Your task to perform on an android device: turn on data saver in the chrome app Image 0: 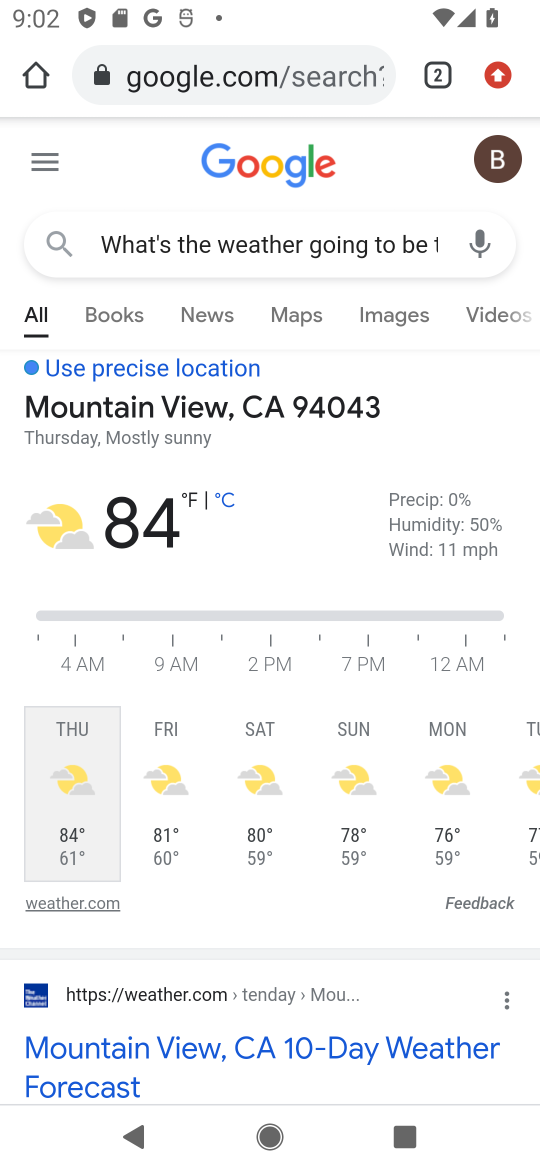
Step 0: click (520, 105)
Your task to perform on an android device: turn on data saver in the chrome app Image 1: 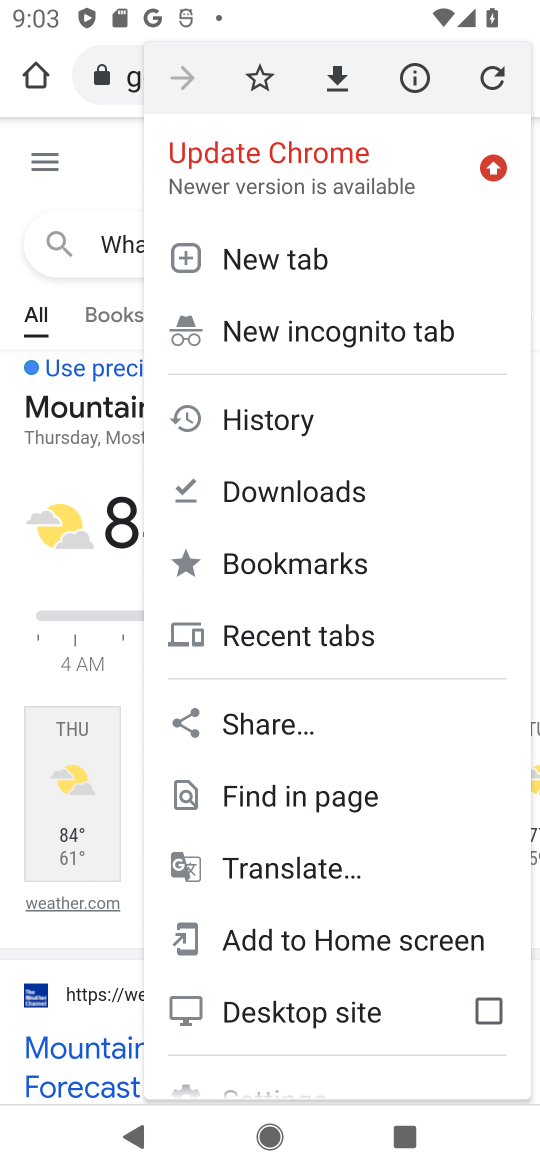
Step 1: drag from (372, 1042) to (348, 547)
Your task to perform on an android device: turn on data saver in the chrome app Image 2: 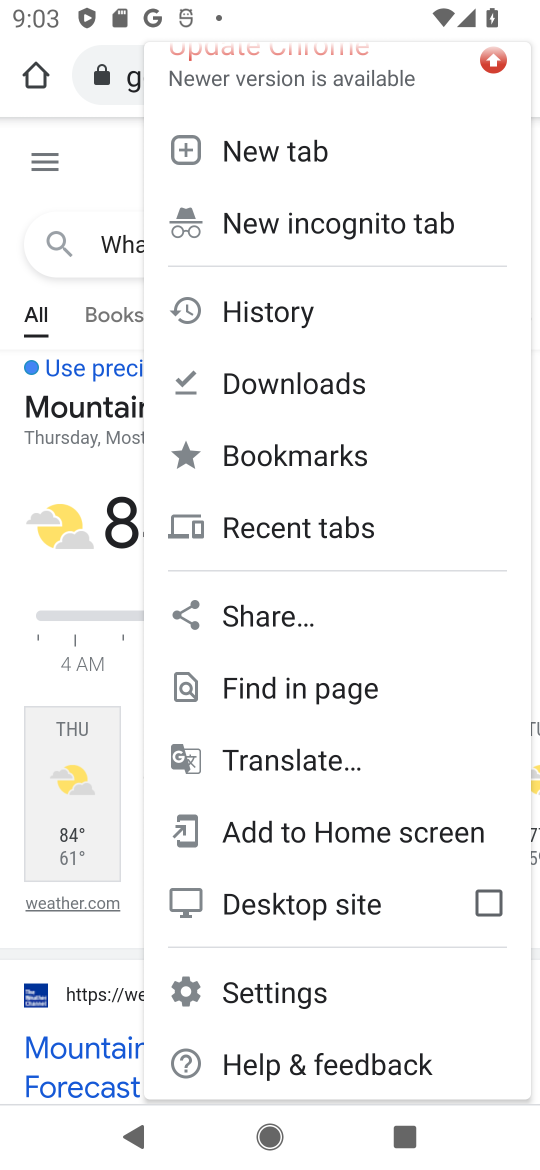
Step 2: click (329, 997)
Your task to perform on an android device: turn on data saver in the chrome app Image 3: 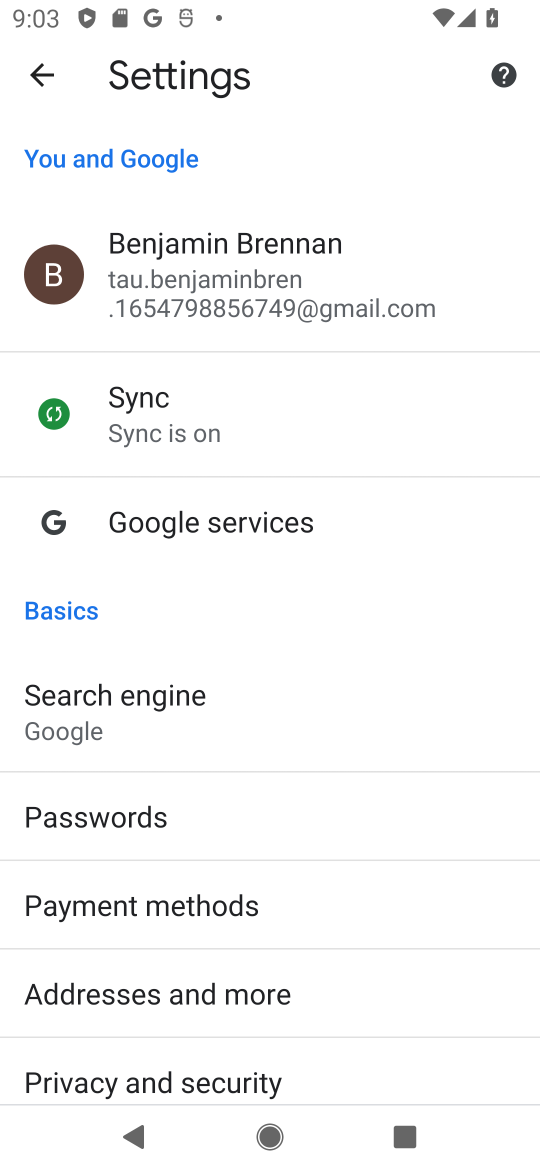
Step 3: drag from (331, 1034) to (284, 412)
Your task to perform on an android device: turn on data saver in the chrome app Image 4: 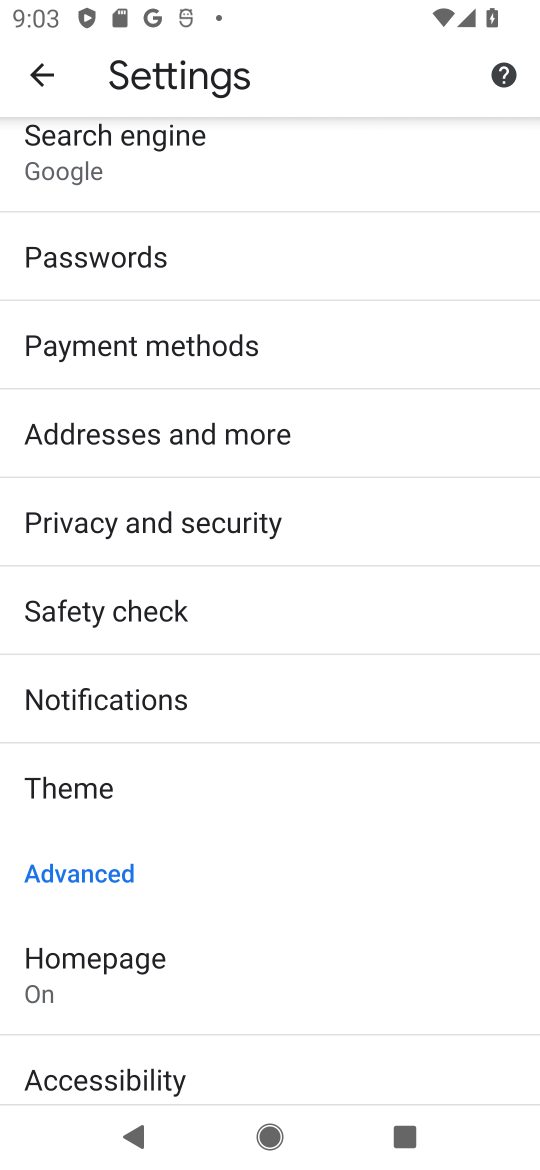
Step 4: drag from (311, 1035) to (312, 451)
Your task to perform on an android device: turn on data saver in the chrome app Image 5: 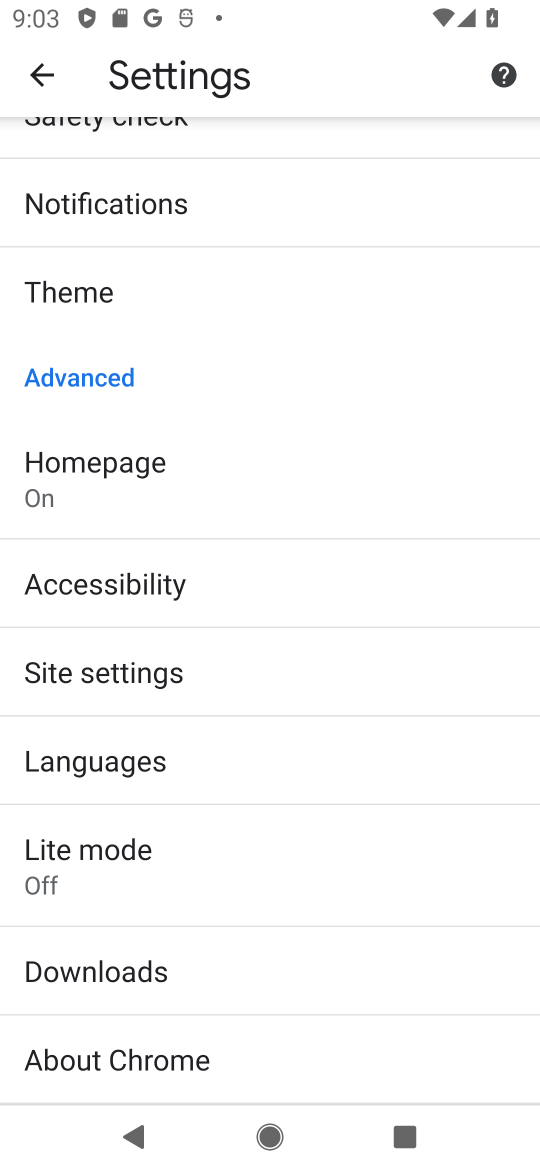
Step 5: click (277, 843)
Your task to perform on an android device: turn on data saver in the chrome app Image 6: 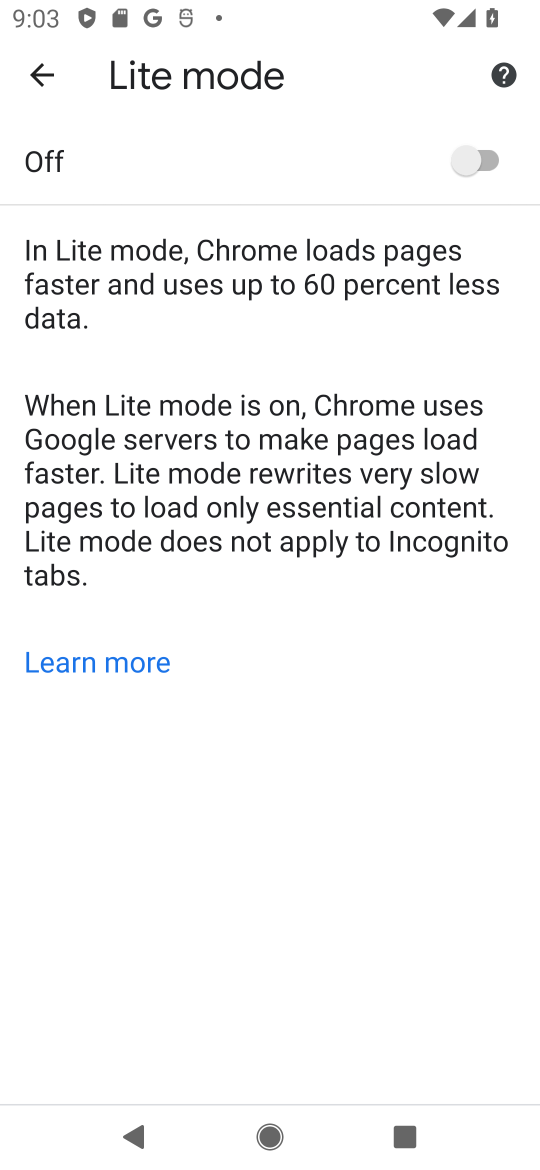
Step 6: click (446, 171)
Your task to perform on an android device: turn on data saver in the chrome app Image 7: 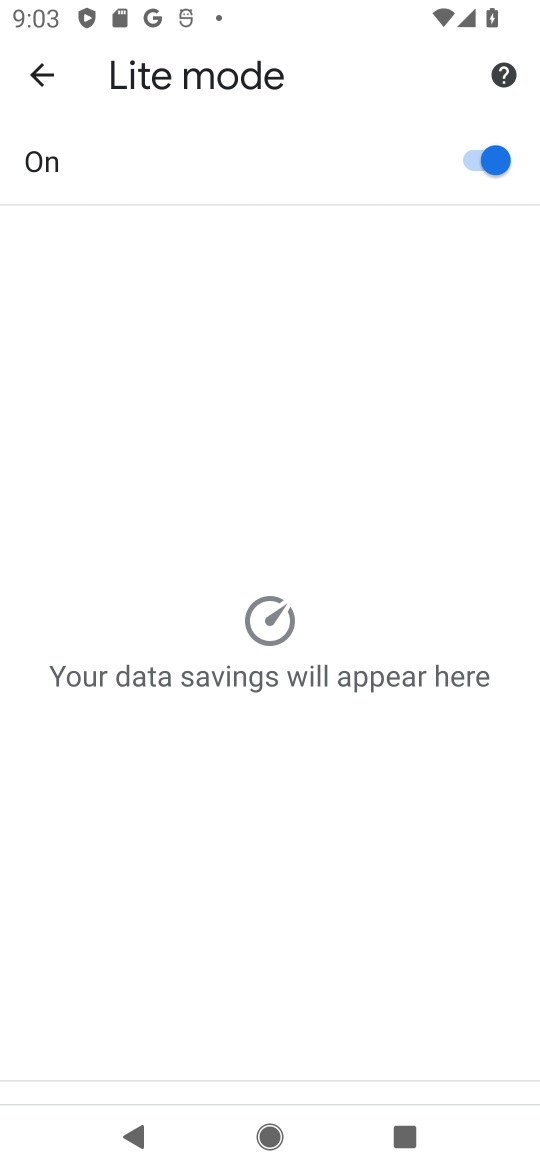
Step 7: task complete